Your task to perform on an android device: find snoozed emails in the gmail app Image 0: 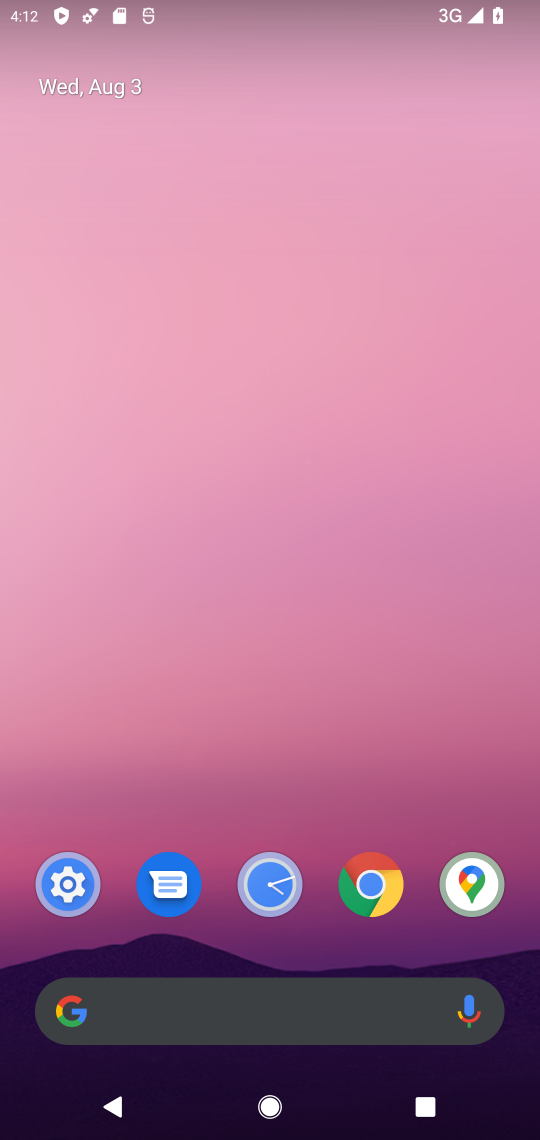
Step 0: drag from (327, 966) to (398, 433)
Your task to perform on an android device: find snoozed emails in the gmail app Image 1: 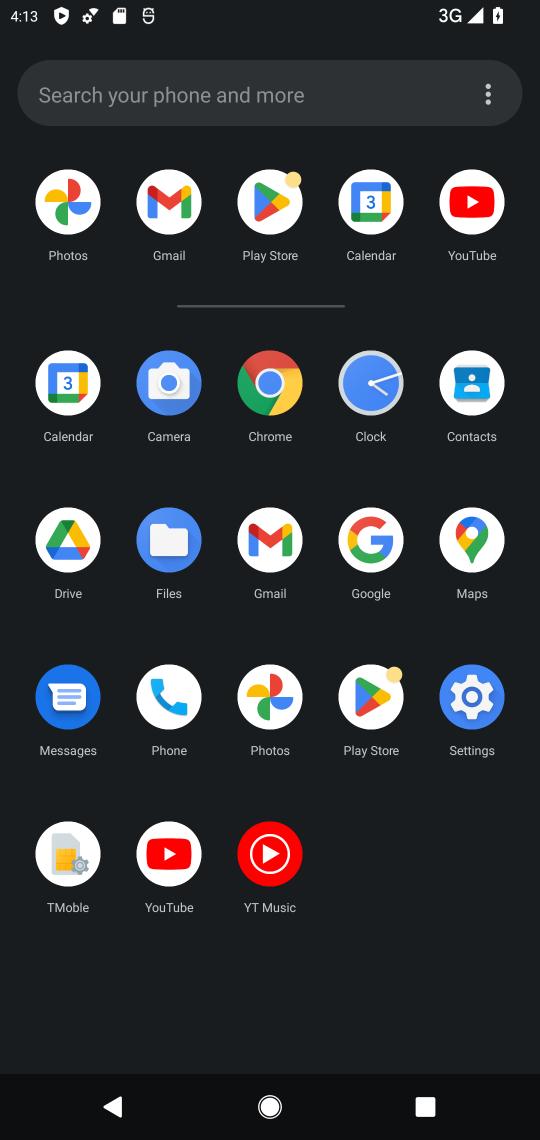
Step 1: click (280, 573)
Your task to perform on an android device: find snoozed emails in the gmail app Image 2: 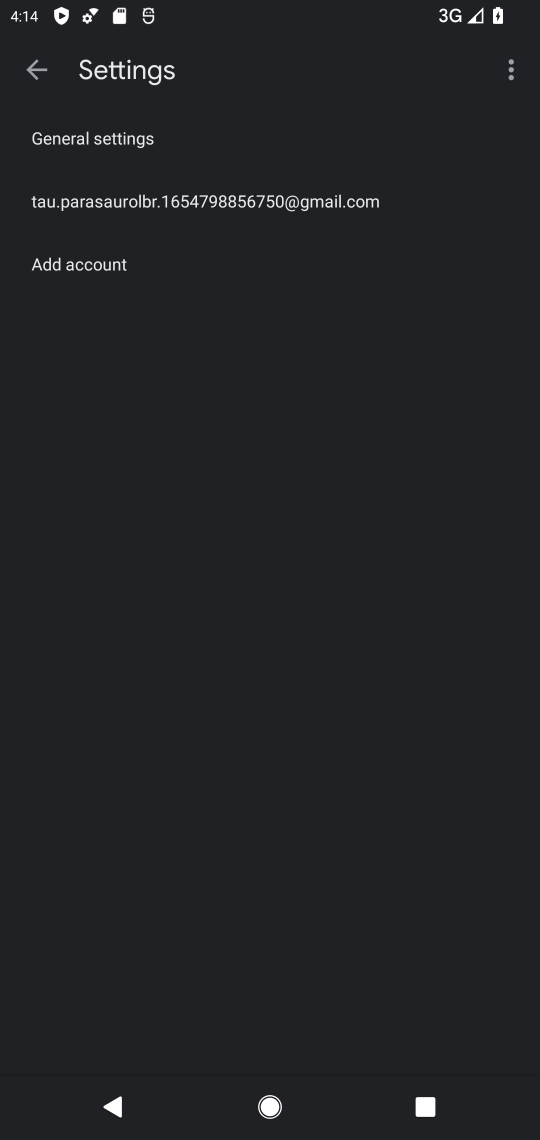
Step 2: click (52, 85)
Your task to perform on an android device: find snoozed emails in the gmail app Image 3: 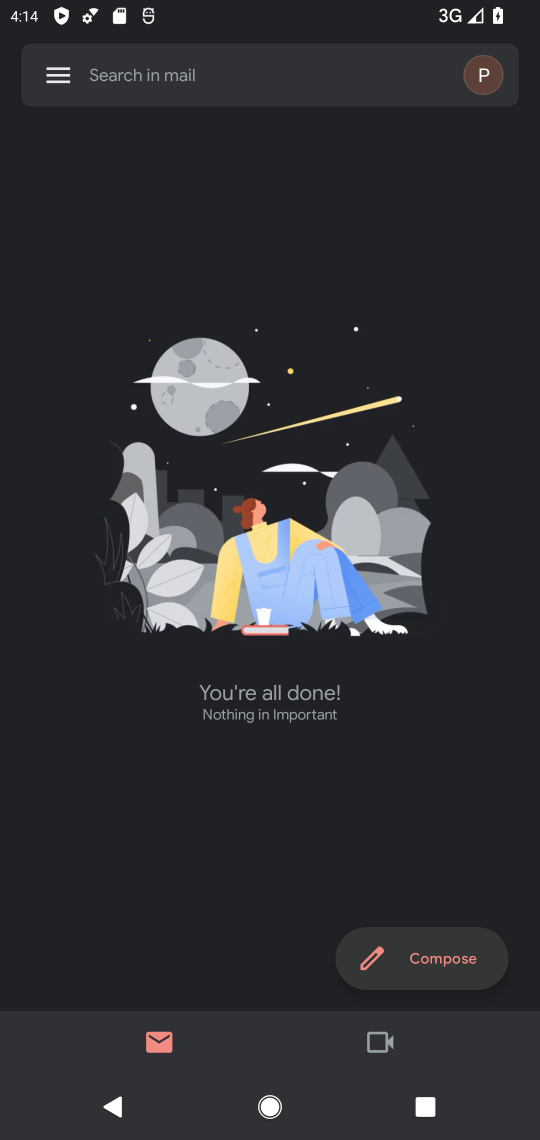
Step 3: click (40, 77)
Your task to perform on an android device: find snoozed emails in the gmail app Image 4: 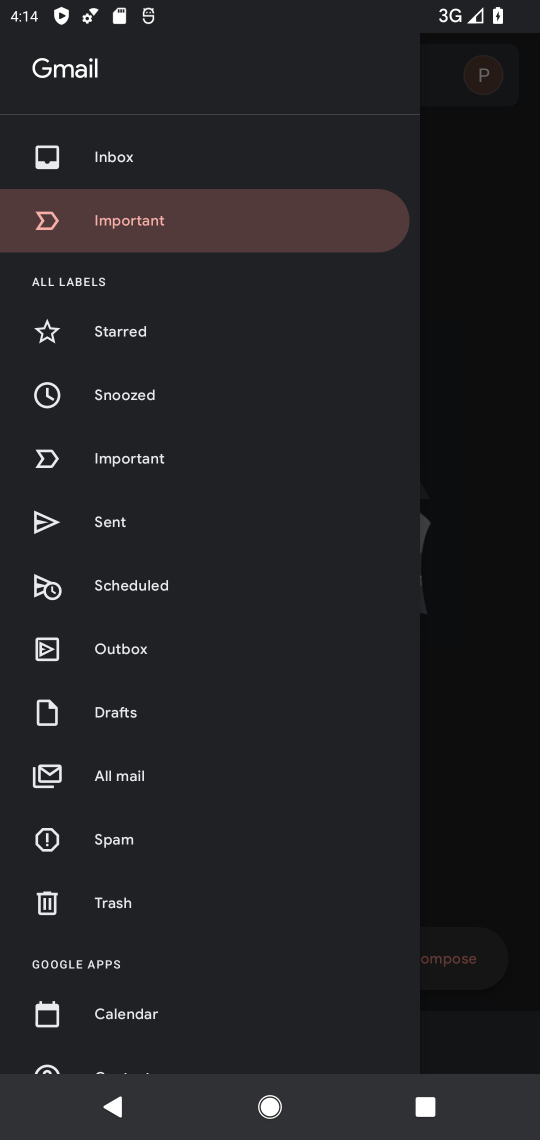
Step 4: task complete